Your task to perform on an android device: Search for vegetarian restaurants on Maps Image 0: 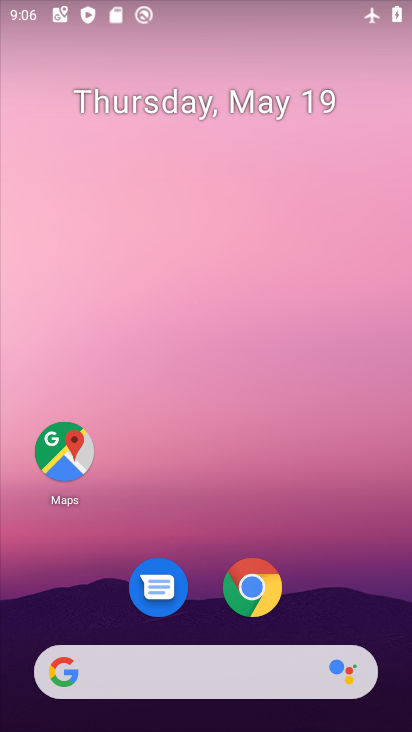
Step 0: drag from (329, 500) to (256, 34)
Your task to perform on an android device: Search for vegetarian restaurants on Maps Image 1: 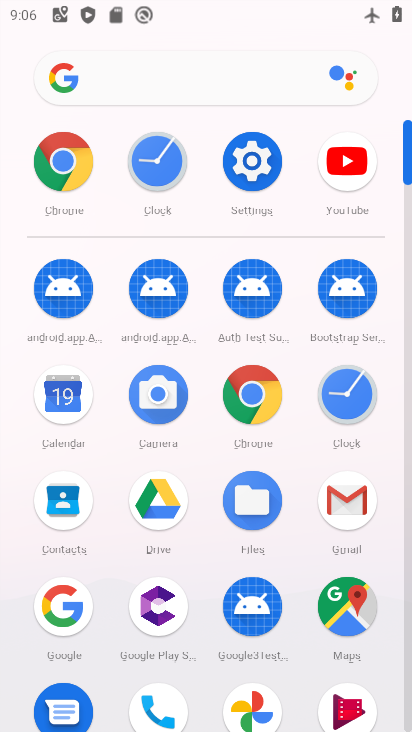
Step 1: drag from (10, 563) to (11, 253)
Your task to perform on an android device: Search for vegetarian restaurants on Maps Image 2: 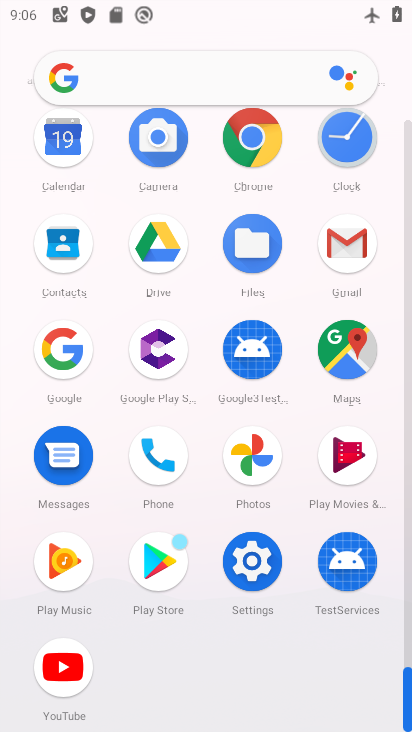
Step 2: click (348, 351)
Your task to perform on an android device: Search for vegetarian restaurants on Maps Image 3: 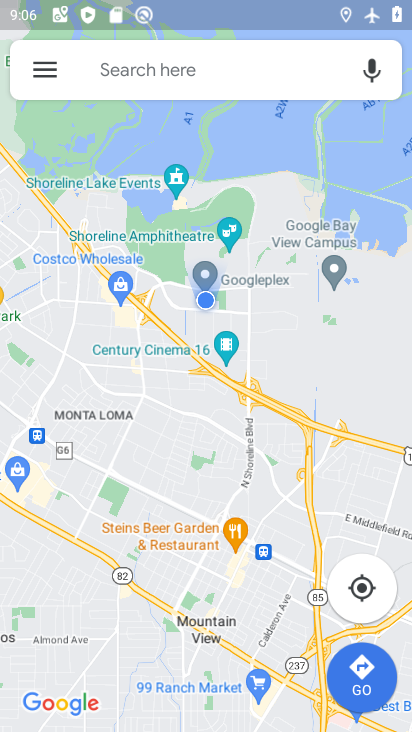
Step 3: click (225, 61)
Your task to perform on an android device: Search for vegetarian restaurants on Maps Image 4: 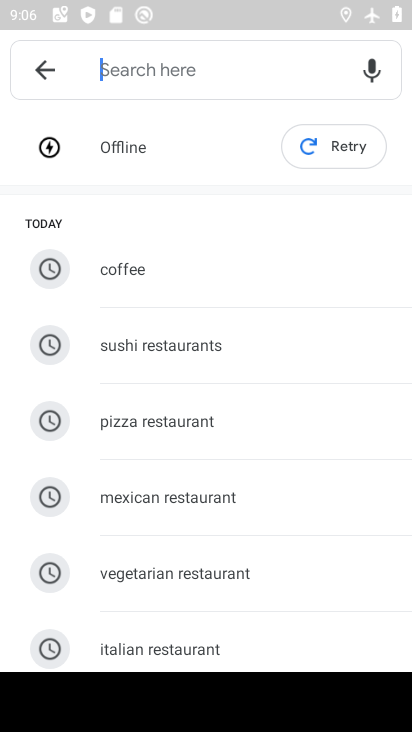
Step 4: click (158, 580)
Your task to perform on an android device: Search for vegetarian restaurants on Maps Image 5: 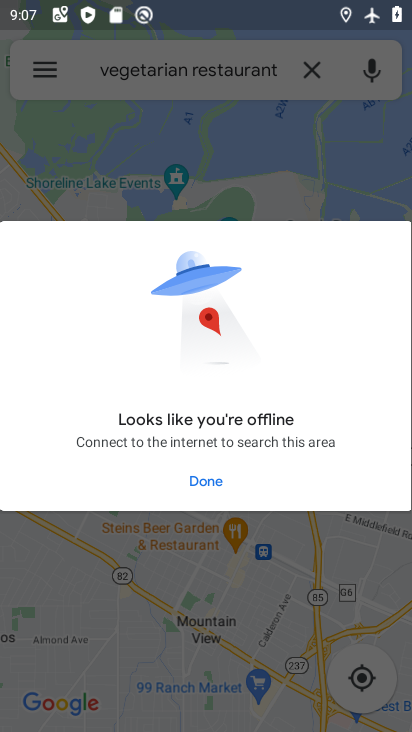
Step 5: task complete